Your task to perform on an android device: Clear the cart on target. Add panasonic triple a to the cart on target, then select checkout. Image 0: 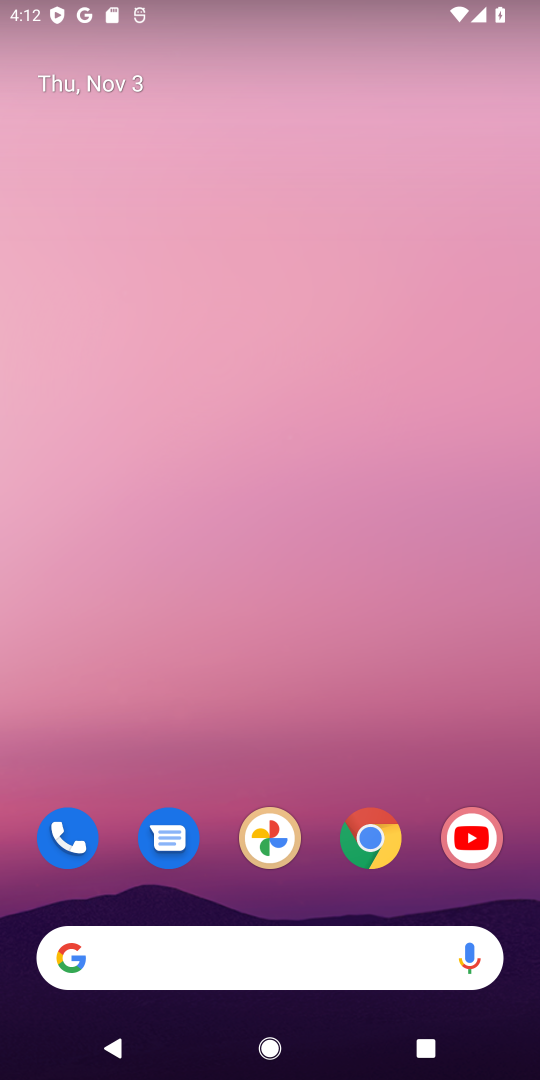
Step 0: click (379, 839)
Your task to perform on an android device: Clear the cart on target. Add panasonic triple a to the cart on target, then select checkout. Image 1: 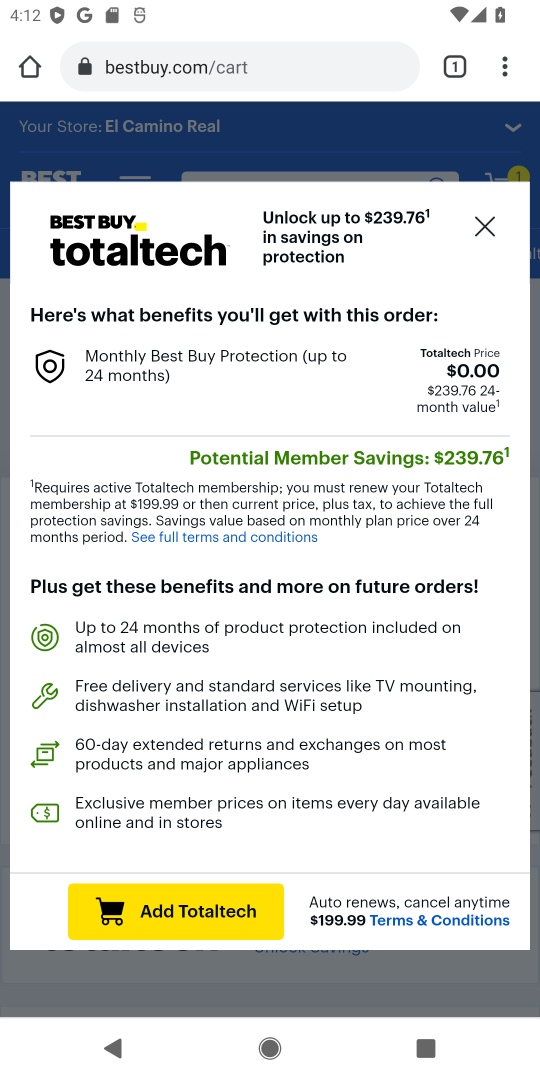
Step 1: click (294, 65)
Your task to perform on an android device: Clear the cart on target. Add panasonic triple a to the cart on target, then select checkout. Image 2: 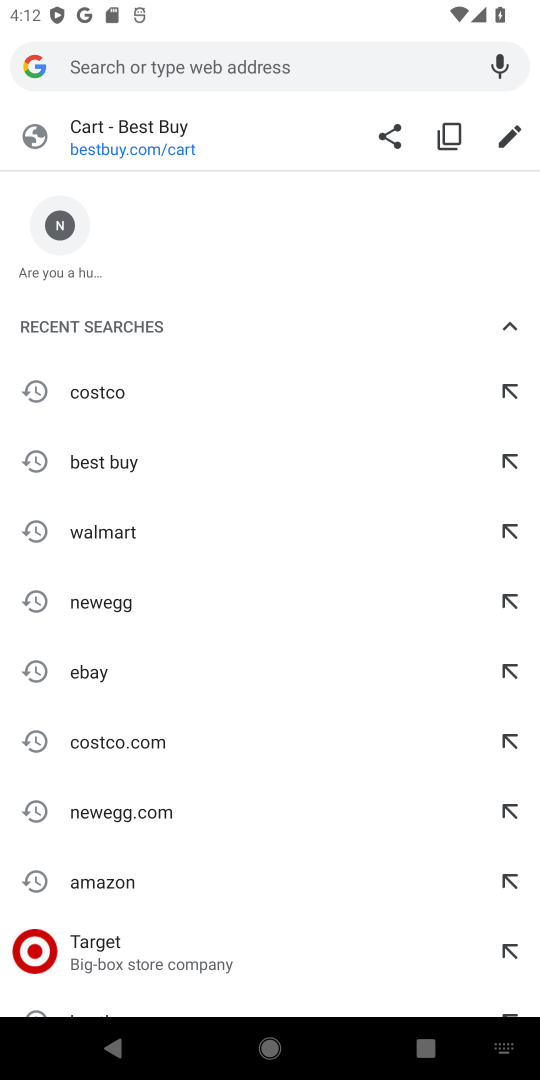
Step 2: click (120, 940)
Your task to perform on an android device: Clear the cart on target. Add panasonic triple a to the cart on target, then select checkout. Image 3: 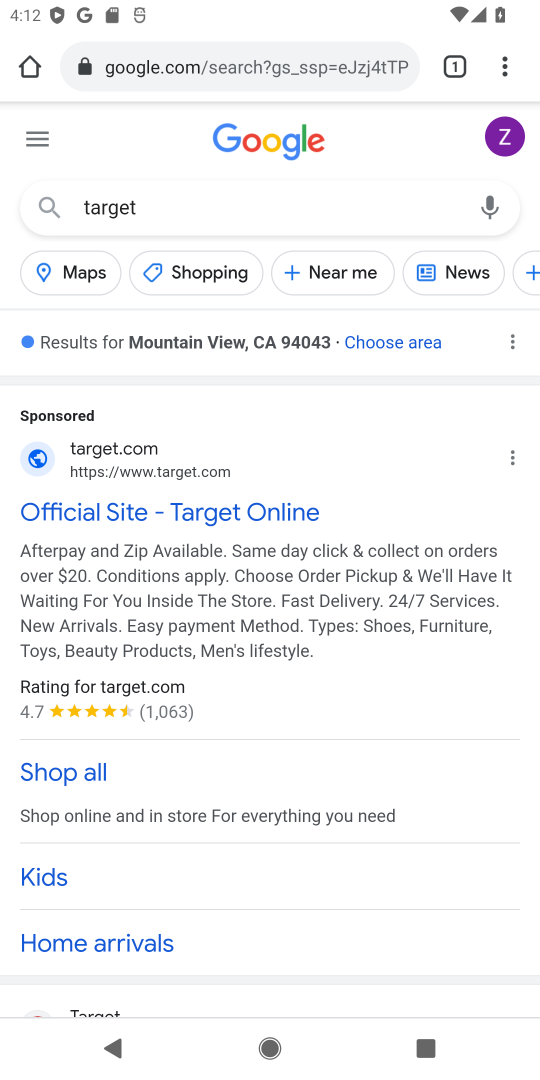
Step 3: click (119, 512)
Your task to perform on an android device: Clear the cart on target. Add panasonic triple a to the cart on target, then select checkout. Image 4: 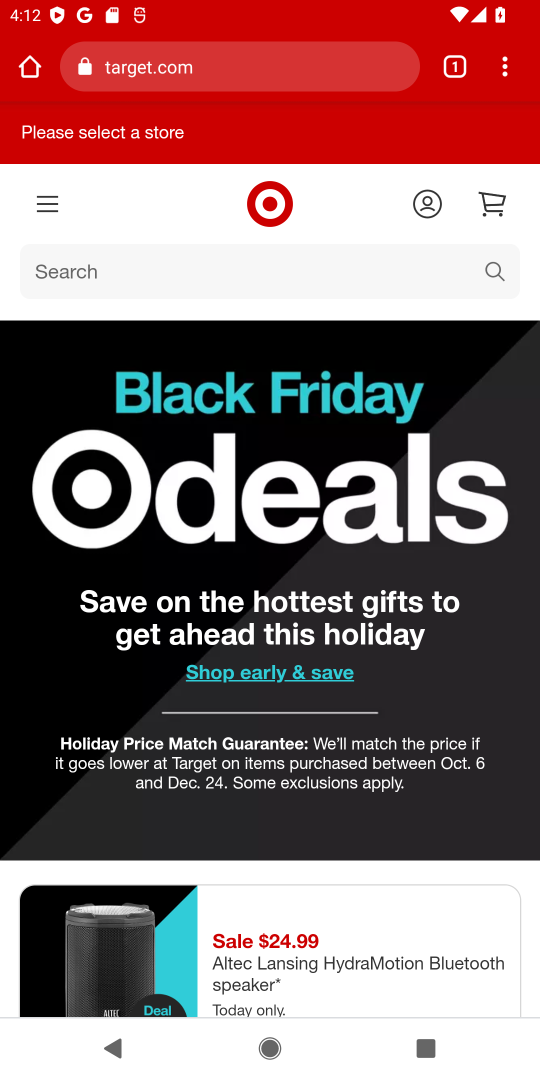
Step 4: click (493, 270)
Your task to perform on an android device: Clear the cart on target. Add panasonic triple a to the cart on target, then select checkout. Image 5: 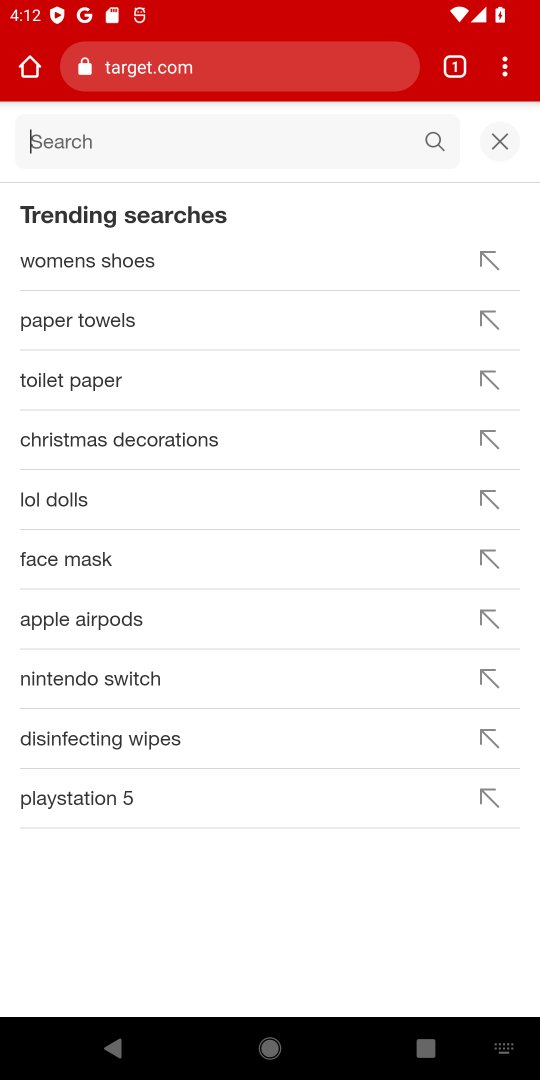
Step 5: type "panasonic triple"
Your task to perform on an android device: Clear the cart on target. Add panasonic triple a to the cart on target, then select checkout. Image 6: 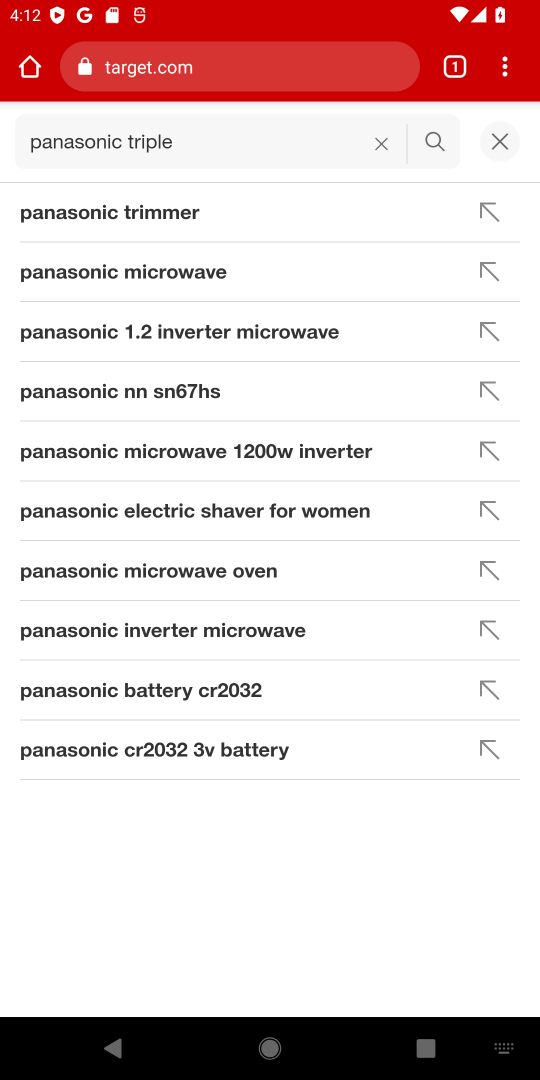
Step 6: task complete